Your task to perform on an android device: install app "Gboard" Image 0: 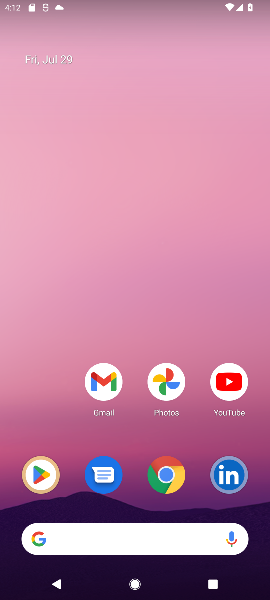
Step 0: press home button
Your task to perform on an android device: install app "Gboard" Image 1: 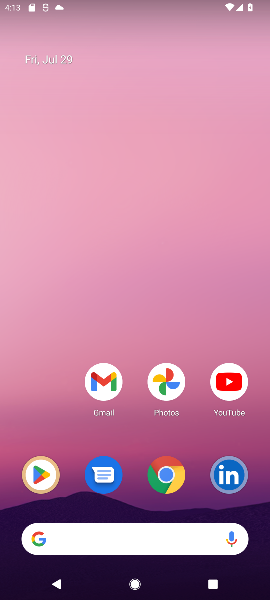
Step 1: click (39, 477)
Your task to perform on an android device: install app "Gboard" Image 2: 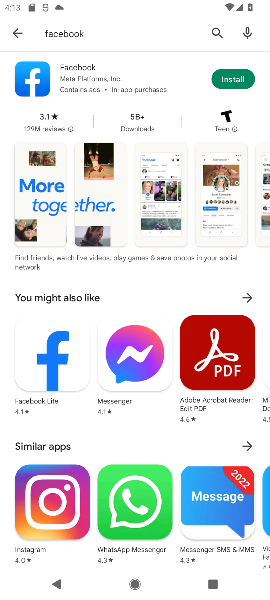
Step 2: click (22, 29)
Your task to perform on an android device: install app "Gboard" Image 3: 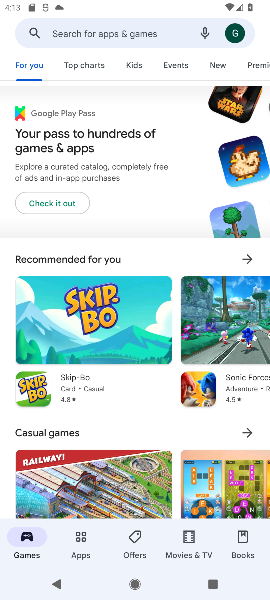
Step 3: click (136, 27)
Your task to perform on an android device: install app "Gboard" Image 4: 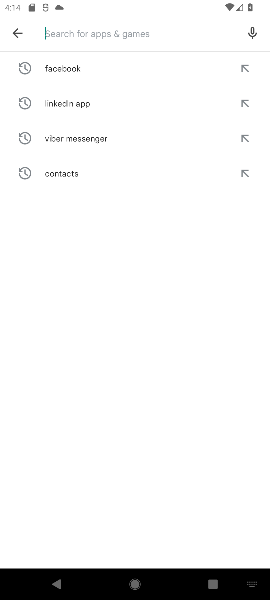
Step 4: type "Gboard"
Your task to perform on an android device: install app "Gboard" Image 5: 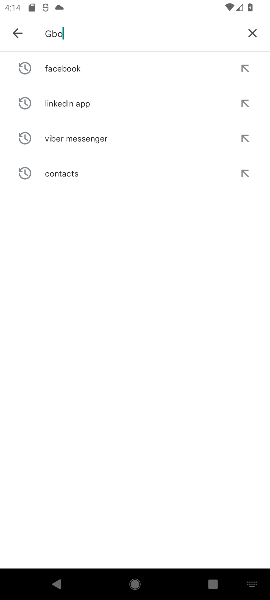
Step 5: type ""
Your task to perform on an android device: install app "Gboard" Image 6: 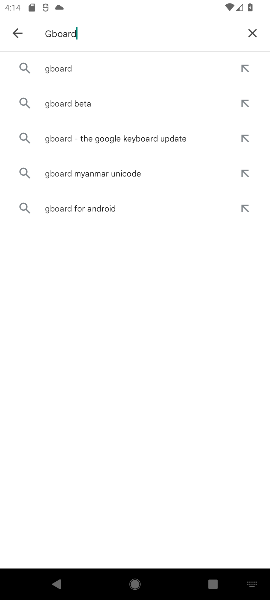
Step 6: click (53, 66)
Your task to perform on an android device: install app "Gboard" Image 7: 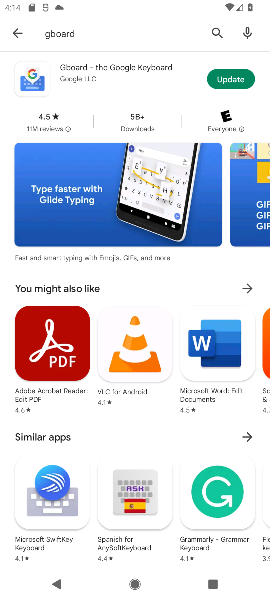
Step 7: click (163, 70)
Your task to perform on an android device: install app "Gboard" Image 8: 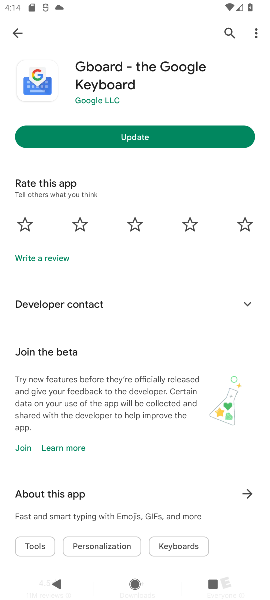
Step 8: task complete